Your task to perform on an android device: change the clock display to digital Image 0: 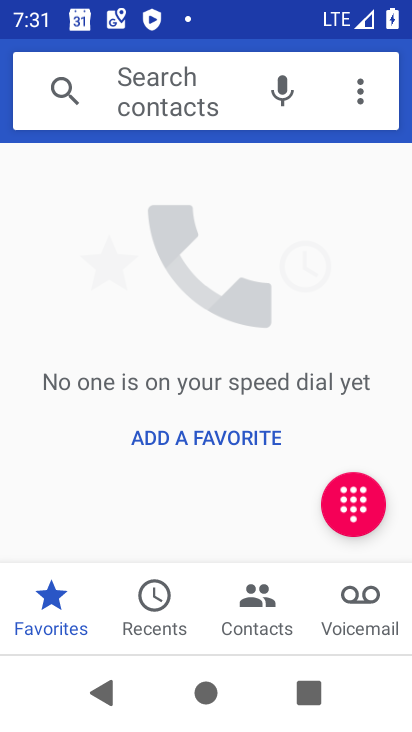
Step 0: press home button
Your task to perform on an android device: change the clock display to digital Image 1: 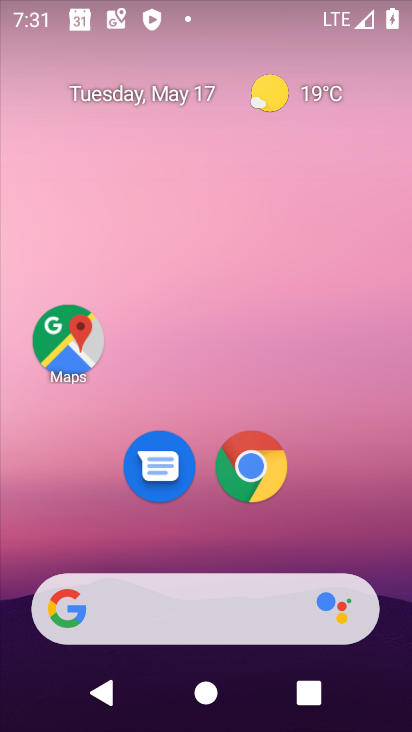
Step 1: drag from (202, 605) to (326, 217)
Your task to perform on an android device: change the clock display to digital Image 2: 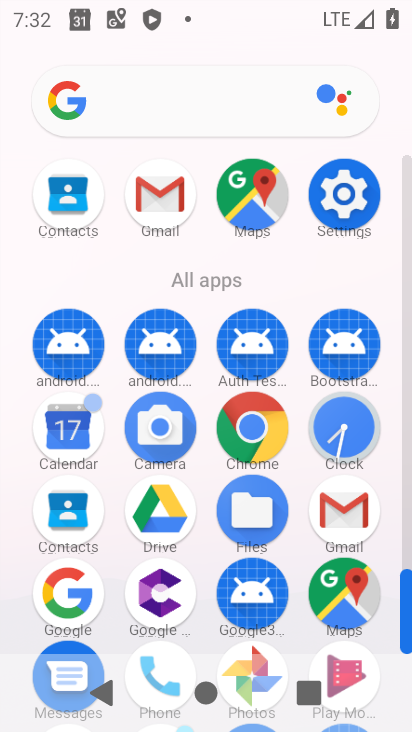
Step 2: click (347, 431)
Your task to perform on an android device: change the clock display to digital Image 3: 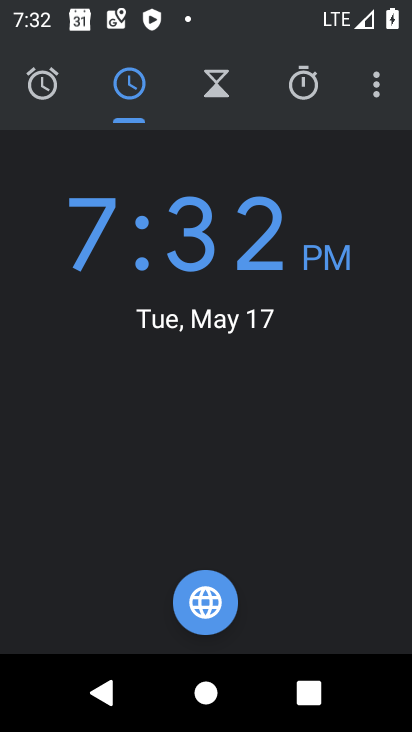
Step 3: click (378, 91)
Your task to perform on an android device: change the clock display to digital Image 4: 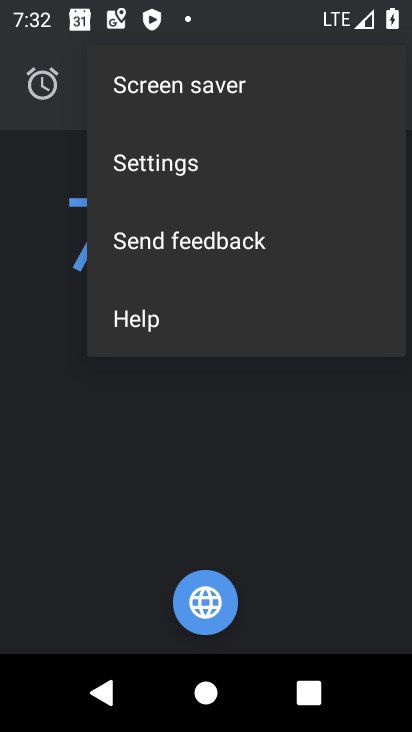
Step 4: click (216, 164)
Your task to perform on an android device: change the clock display to digital Image 5: 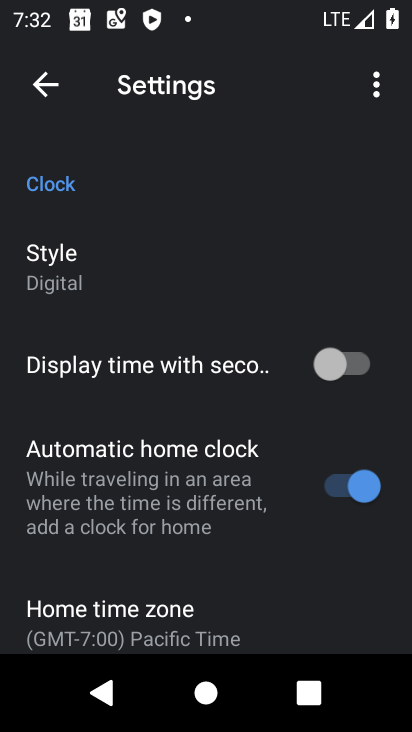
Step 5: task complete